Your task to perform on an android device: Mute all emails from tau.pachycephabr.1654798856749@gmail.com	 Image 0: 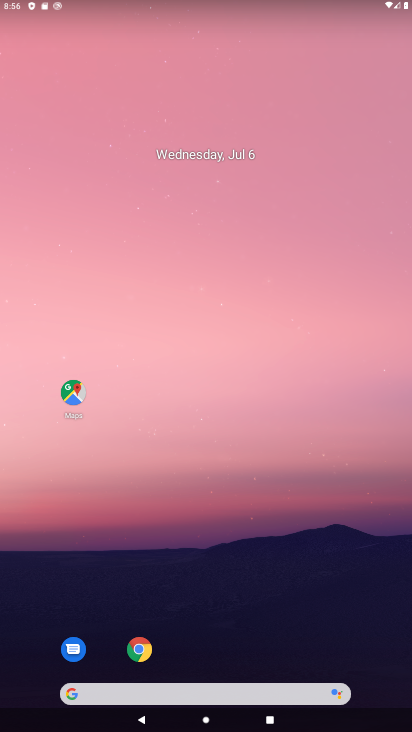
Step 0: drag from (345, 544) to (296, 32)
Your task to perform on an android device: Mute all emails from tau.pachycephabr.1654798856749@gmail.com	 Image 1: 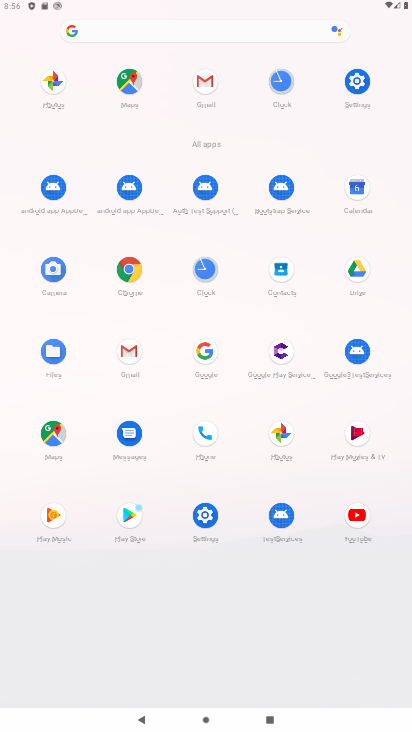
Step 1: click (202, 85)
Your task to perform on an android device: Mute all emails from tau.pachycephabr.1654798856749@gmail.com	 Image 2: 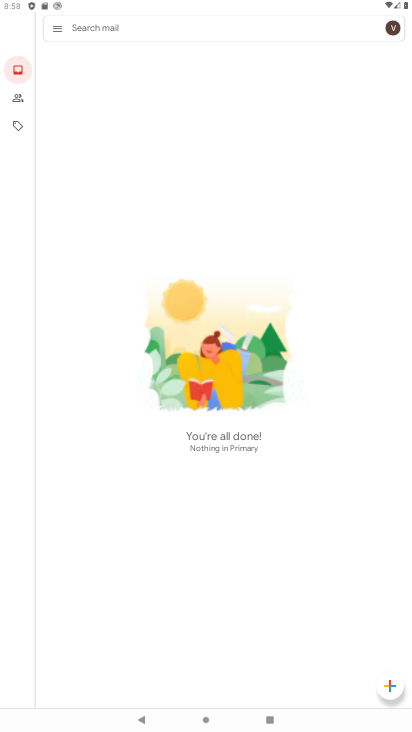
Step 2: task complete